Your task to perform on an android device: turn on data saver in the chrome app Image 0: 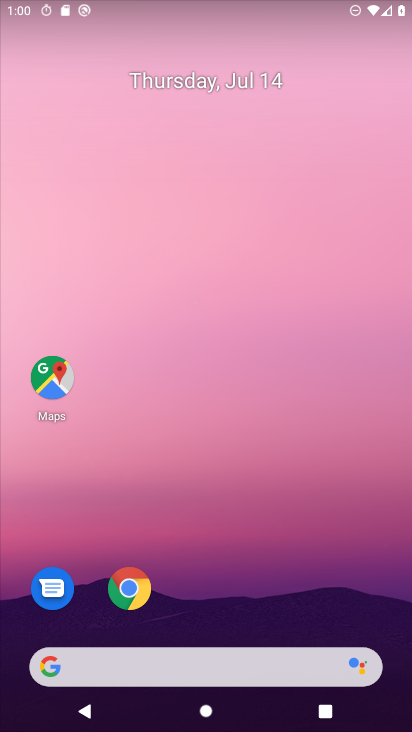
Step 0: click (130, 588)
Your task to perform on an android device: turn on data saver in the chrome app Image 1: 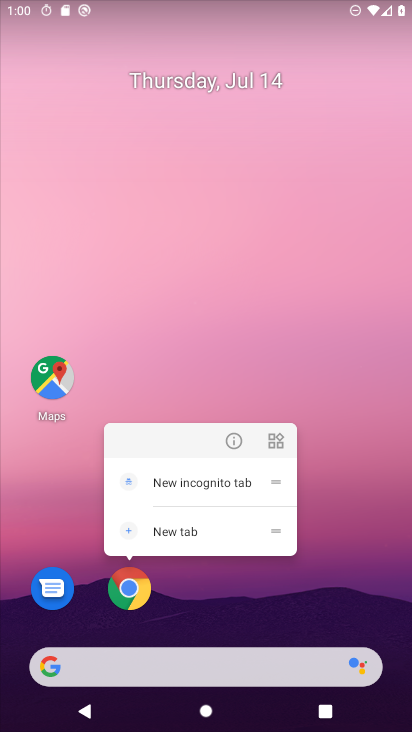
Step 1: click (130, 588)
Your task to perform on an android device: turn on data saver in the chrome app Image 2: 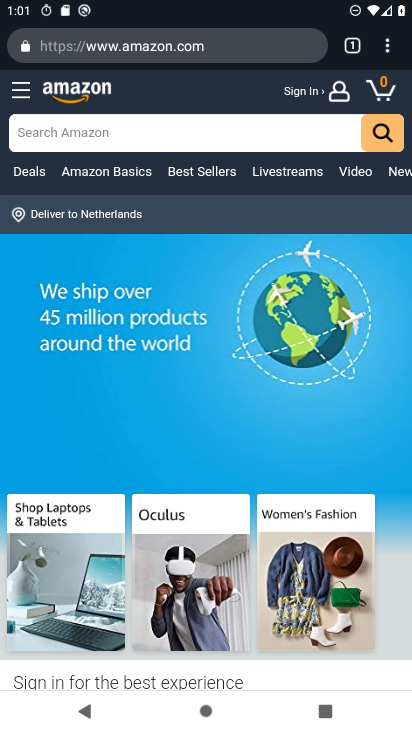
Step 2: drag from (388, 47) to (243, 598)
Your task to perform on an android device: turn on data saver in the chrome app Image 3: 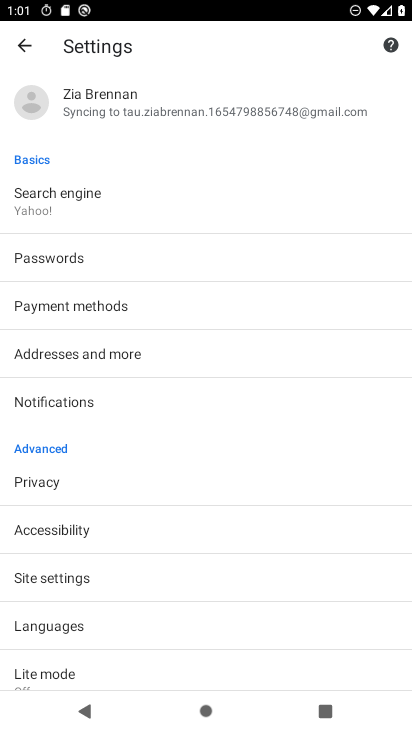
Step 3: click (66, 669)
Your task to perform on an android device: turn on data saver in the chrome app Image 4: 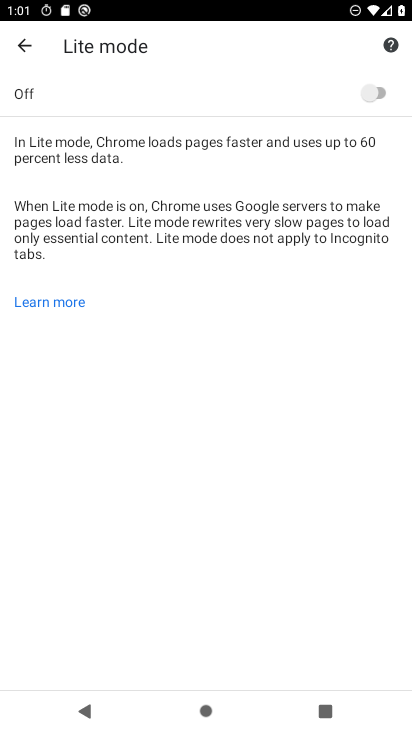
Step 4: click (378, 92)
Your task to perform on an android device: turn on data saver in the chrome app Image 5: 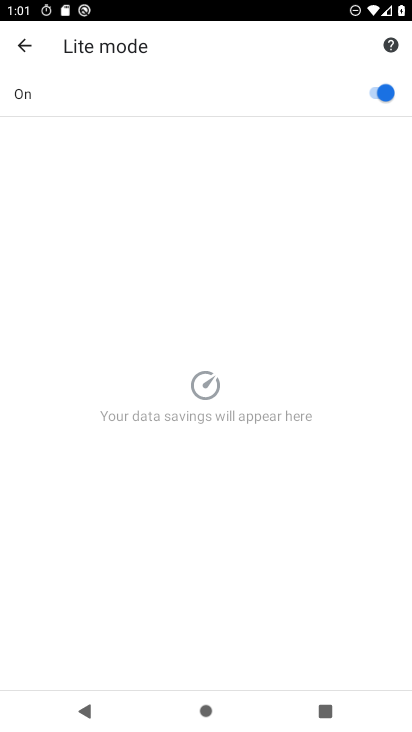
Step 5: task complete